Your task to perform on an android device: set default search engine in the chrome app Image 0: 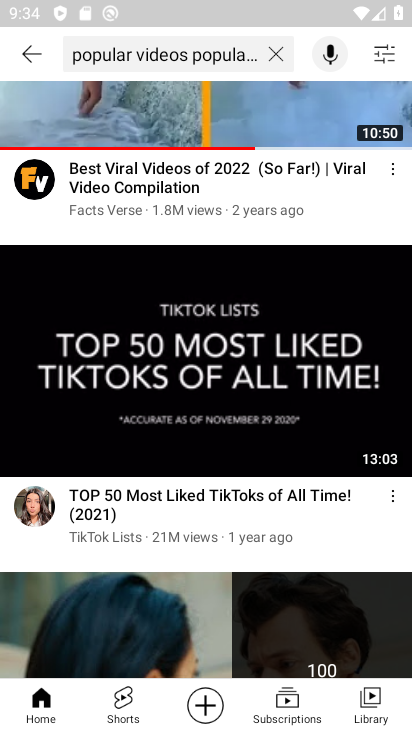
Step 0: press home button
Your task to perform on an android device: set default search engine in the chrome app Image 1: 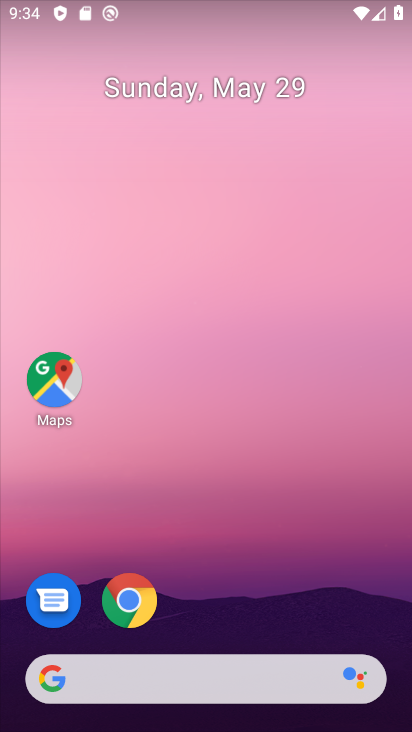
Step 1: click (130, 609)
Your task to perform on an android device: set default search engine in the chrome app Image 2: 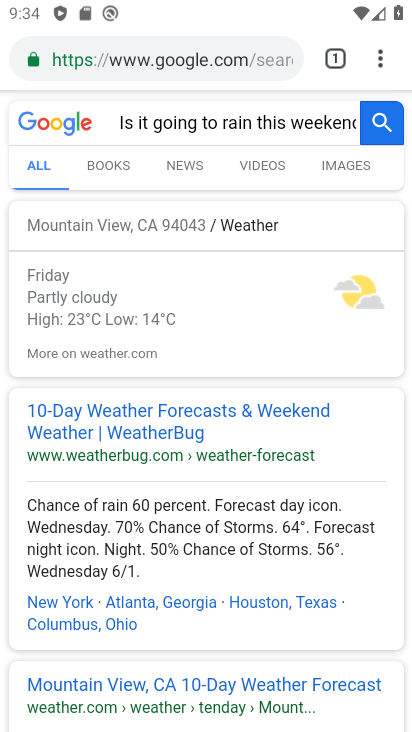
Step 2: drag from (382, 60) to (179, 631)
Your task to perform on an android device: set default search engine in the chrome app Image 3: 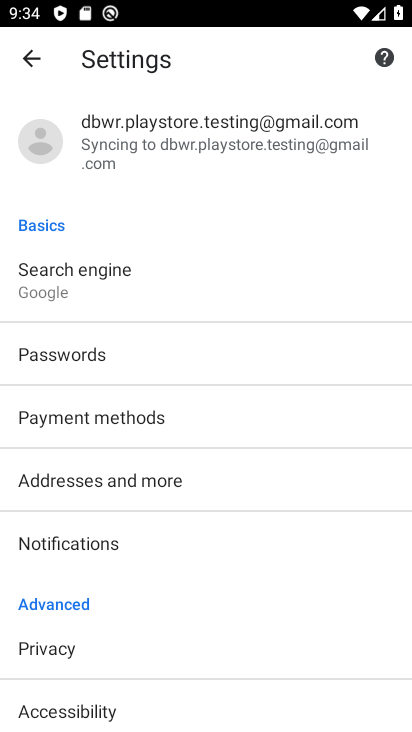
Step 3: click (41, 283)
Your task to perform on an android device: set default search engine in the chrome app Image 4: 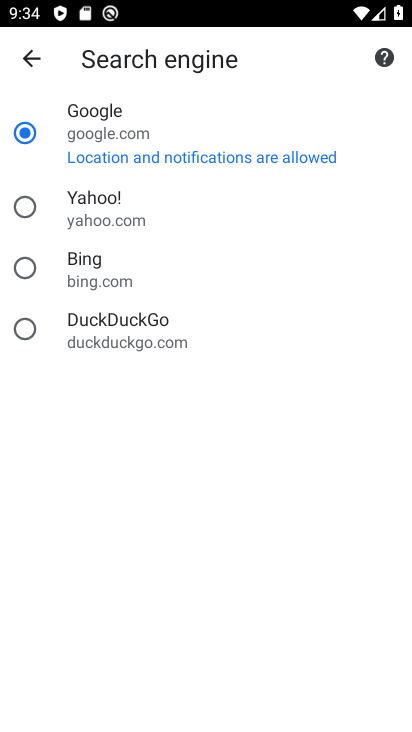
Step 4: task complete